Your task to perform on an android device: open chrome and create a bookmark for the current page Image 0: 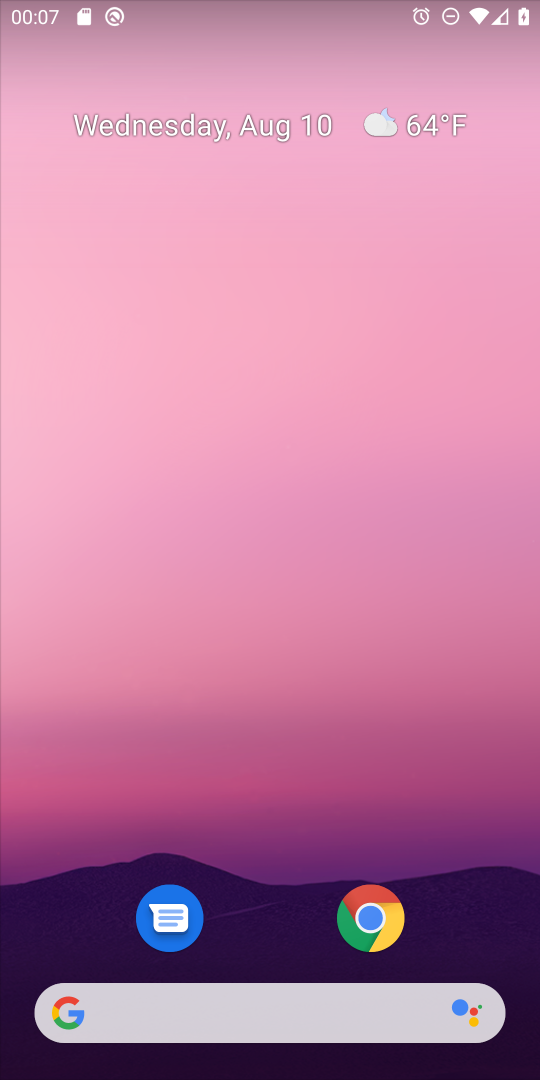
Step 0: drag from (251, 777) to (355, 57)
Your task to perform on an android device: open chrome and create a bookmark for the current page Image 1: 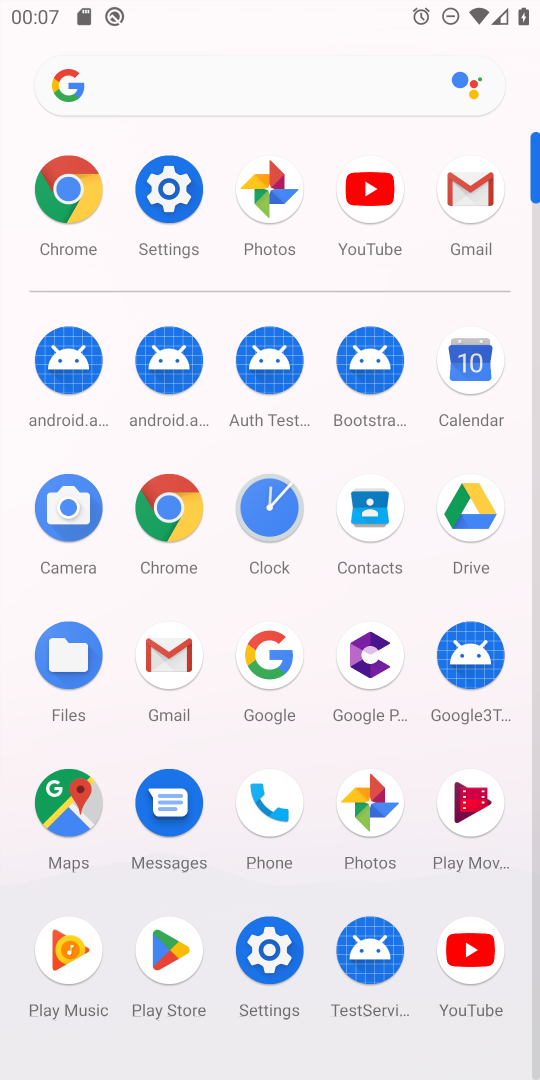
Step 1: click (168, 509)
Your task to perform on an android device: open chrome and create a bookmark for the current page Image 2: 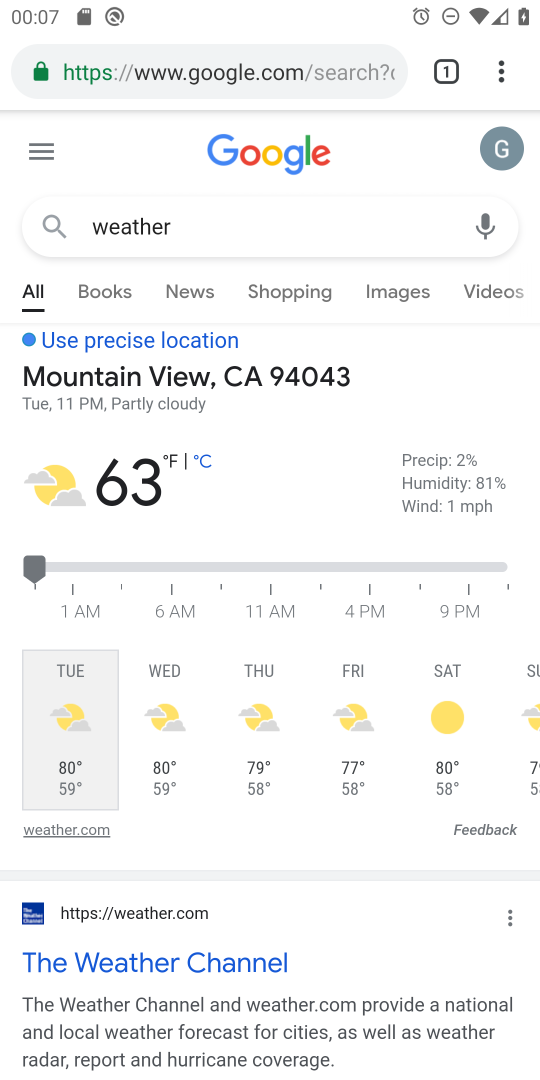
Step 2: task complete